Your task to perform on an android device: Go to sound settings Image 0: 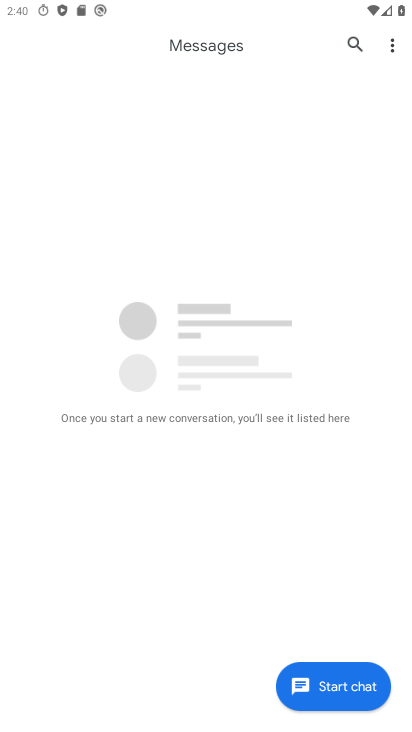
Step 0: press home button
Your task to perform on an android device: Go to sound settings Image 1: 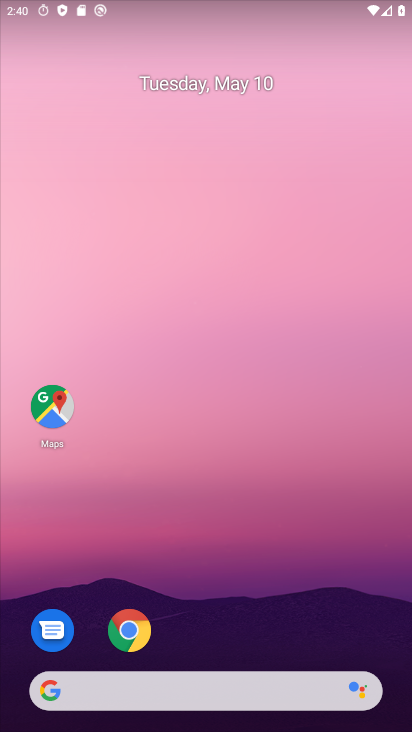
Step 1: drag from (233, 295) to (203, 4)
Your task to perform on an android device: Go to sound settings Image 2: 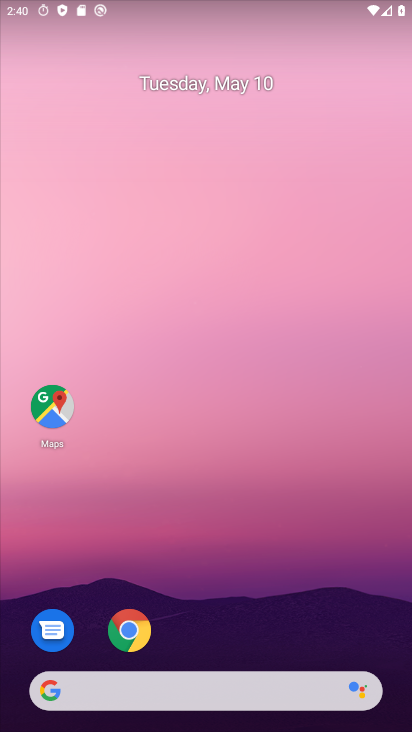
Step 2: drag from (363, 493) to (350, 0)
Your task to perform on an android device: Go to sound settings Image 3: 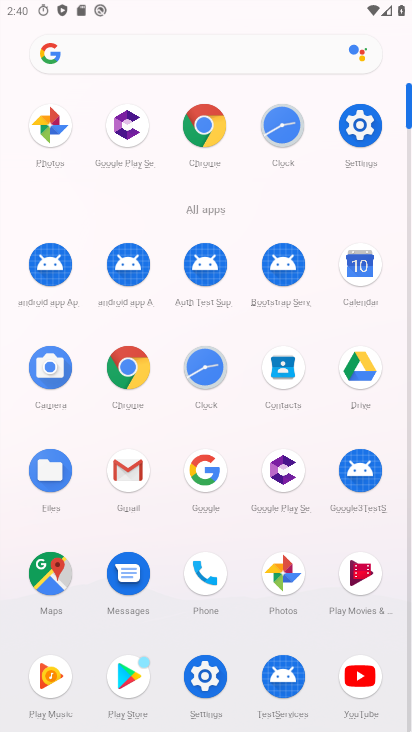
Step 3: click (373, 130)
Your task to perform on an android device: Go to sound settings Image 4: 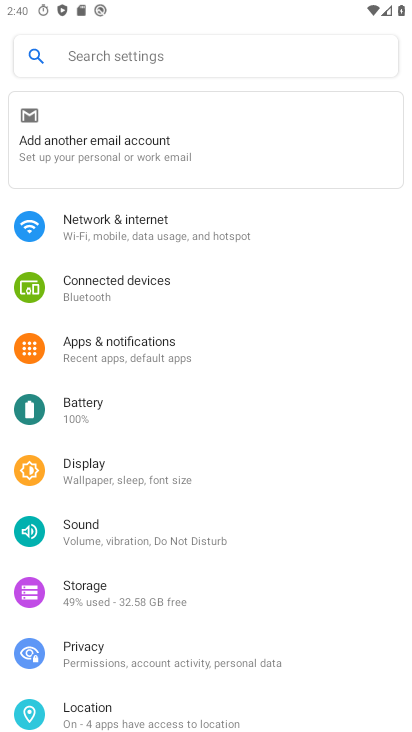
Step 4: click (135, 547)
Your task to perform on an android device: Go to sound settings Image 5: 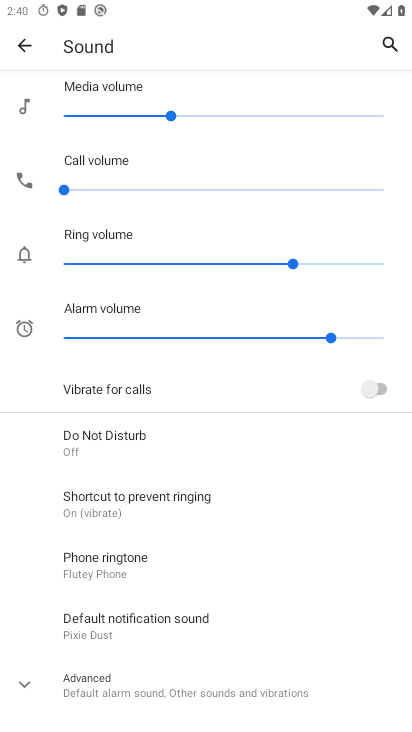
Step 5: task complete